Your task to perform on an android device: open app "Move to iOS" (install if not already installed) Image 0: 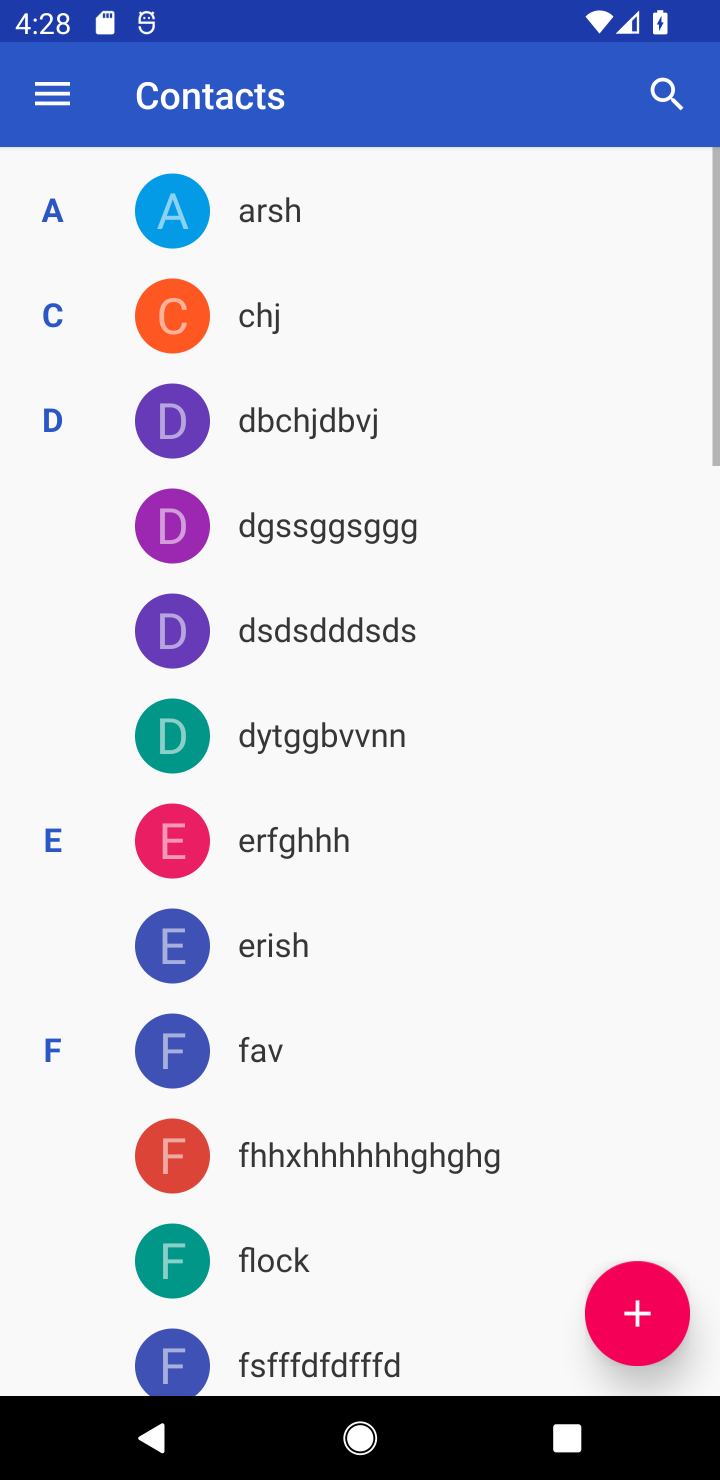
Step 0: press back button
Your task to perform on an android device: open app "Move to iOS" (install if not already installed) Image 1: 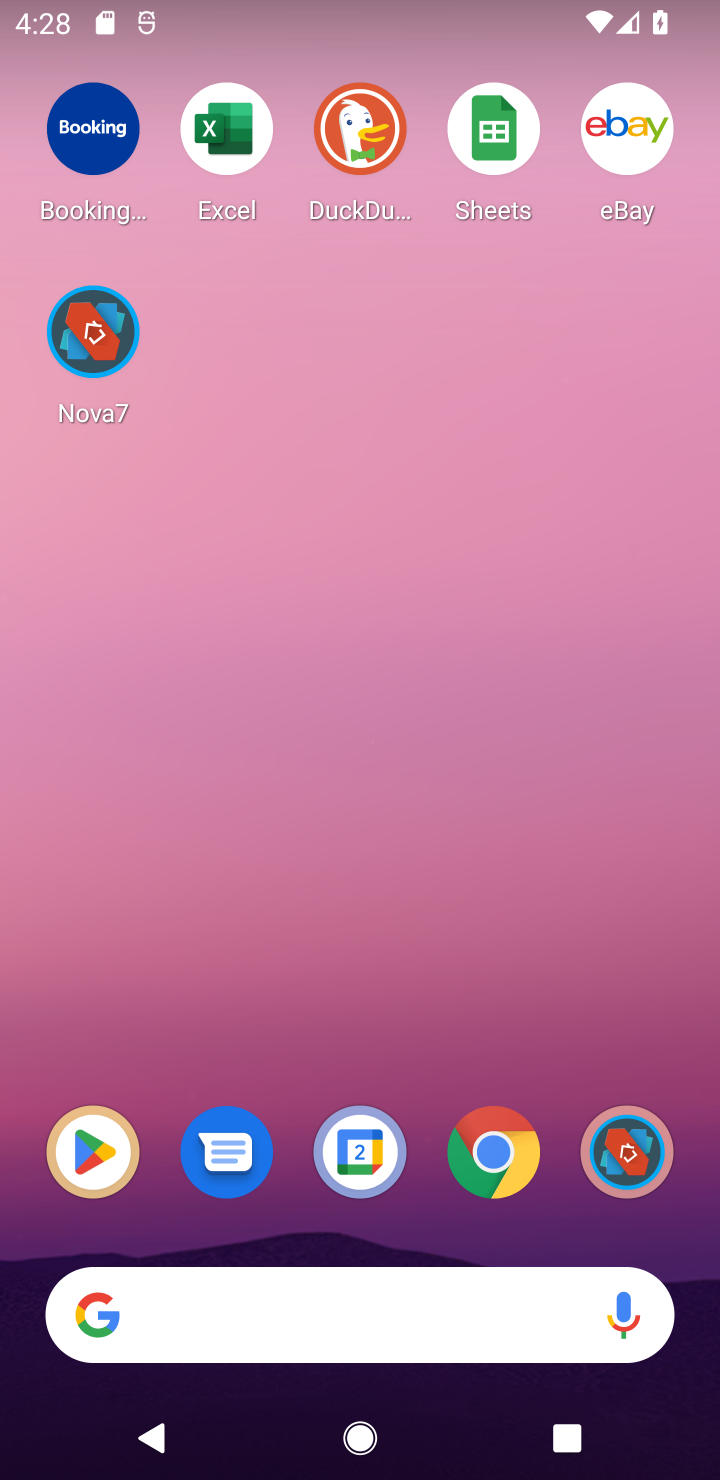
Step 1: press home button
Your task to perform on an android device: open app "Move to iOS" (install if not already installed) Image 2: 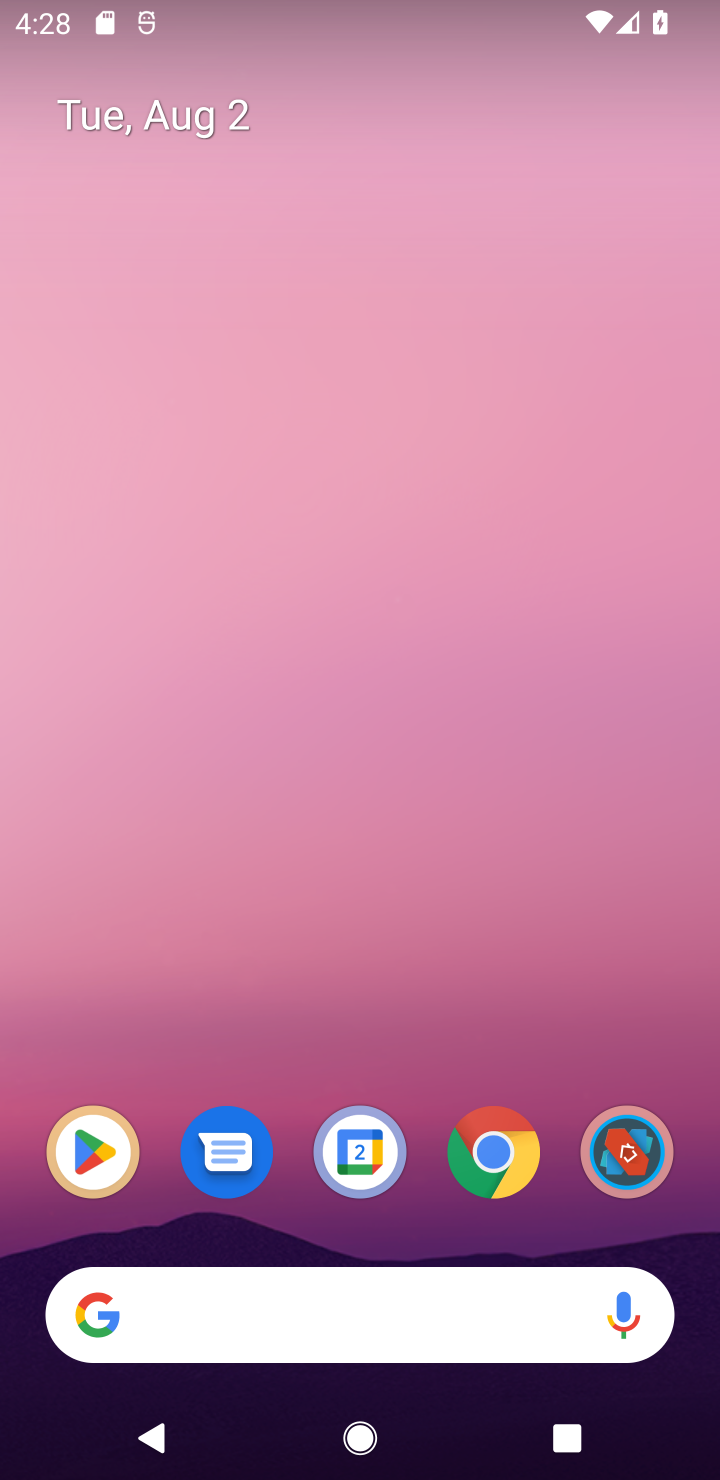
Step 2: drag from (396, 1245) to (535, 100)
Your task to perform on an android device: open app "Move to iOS" (install if not already installed) Image 3: 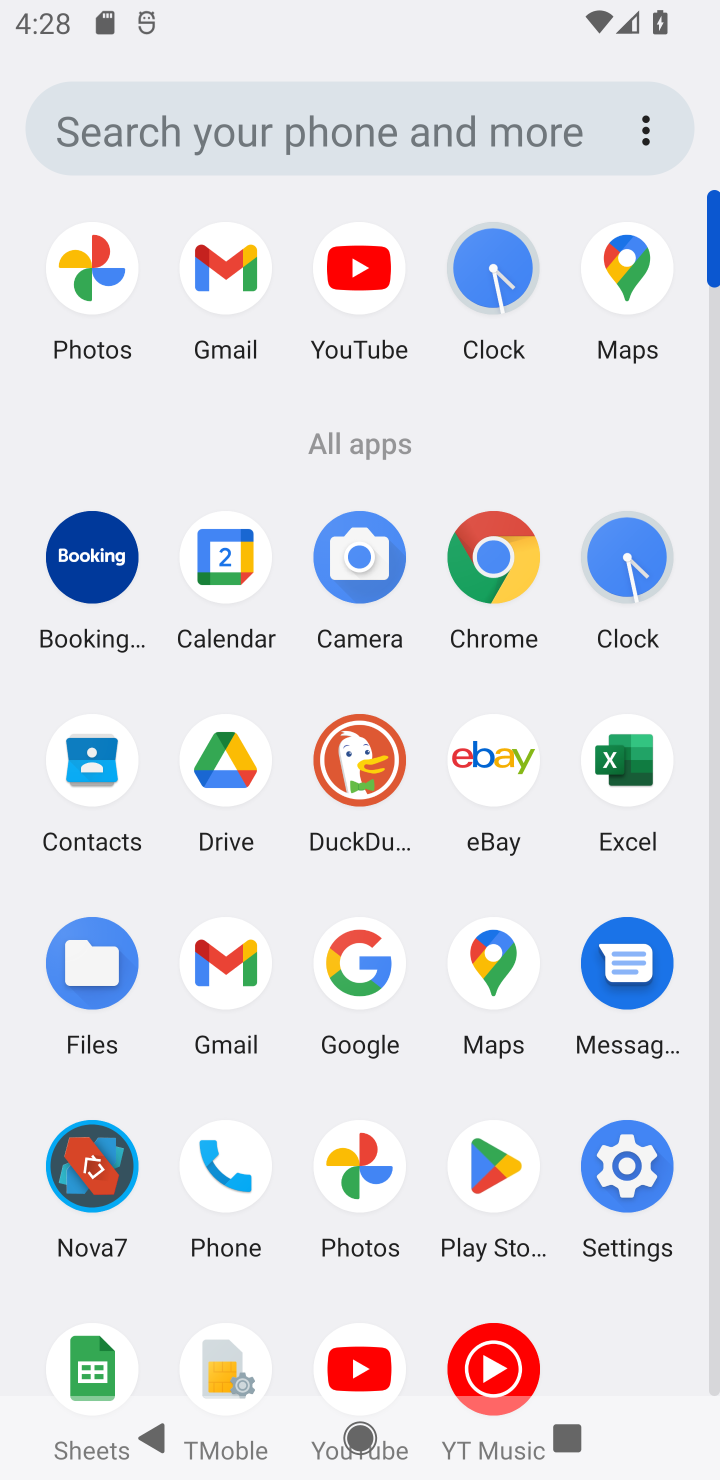
Step 3: click (491, 1176)
Your task to perform on an android device: open app "Move to iOS" (install if not already installed) Image 4: 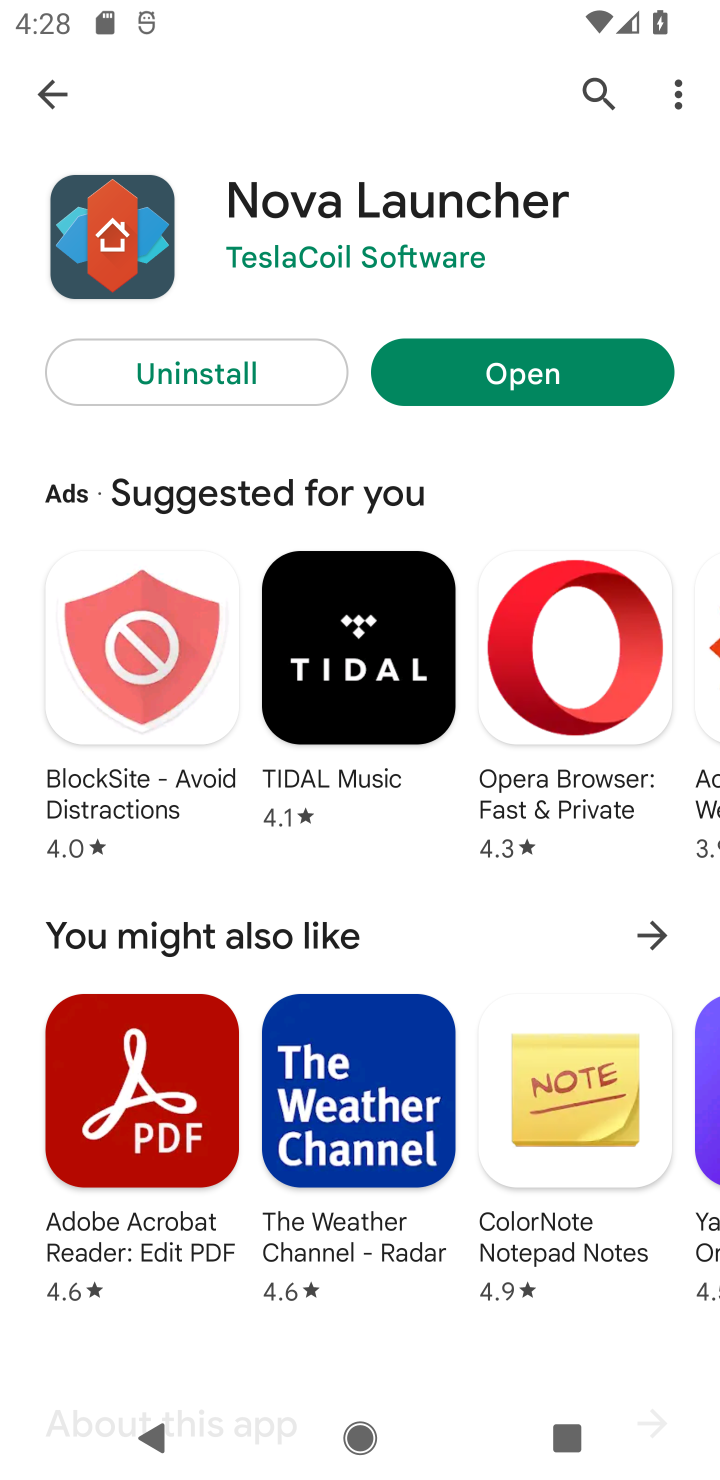
Step 4: click (7, 80)
Your task to perform on an android device: open app "Move to iOS" (install if not already installed) Image 5: 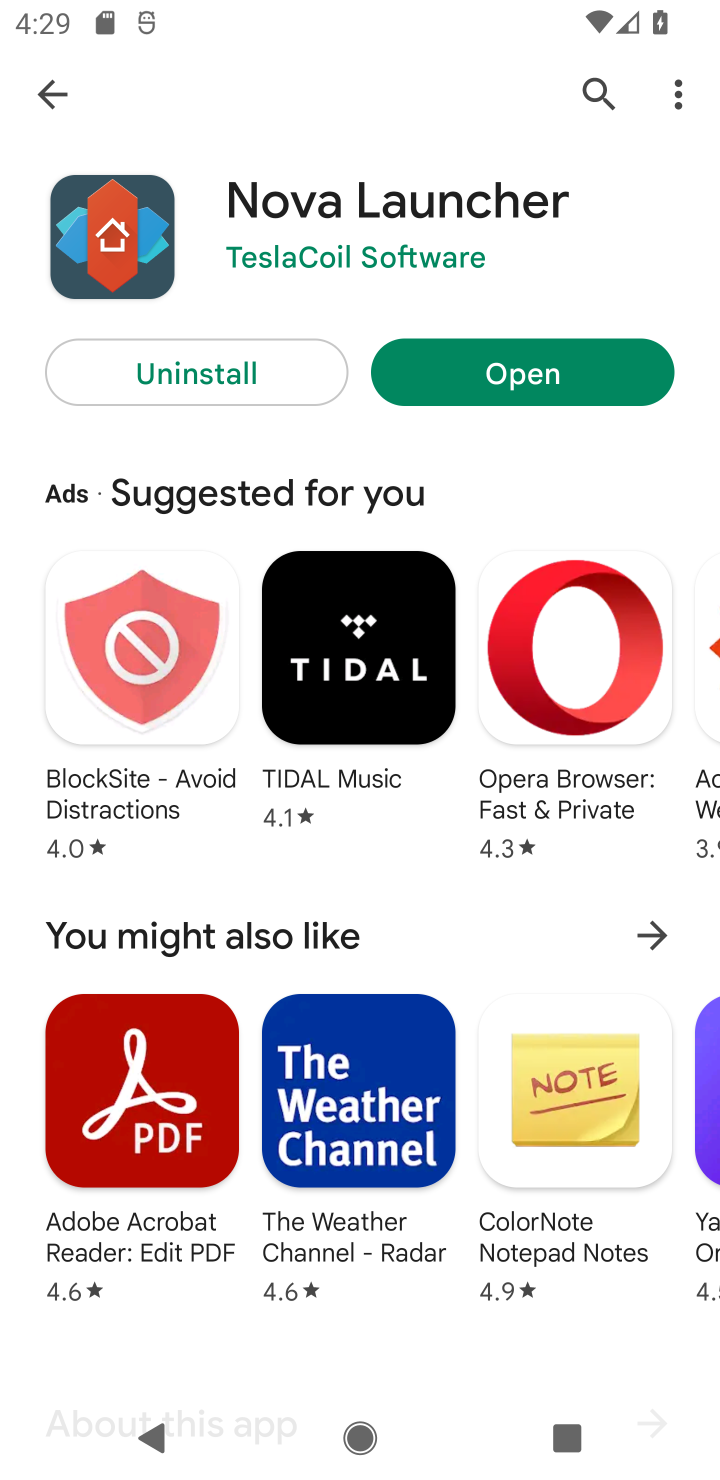
Step 5: click (48, 83)
Your task to perform on an android device: open app "Move to iOS" (install if not already installed) Image 6: 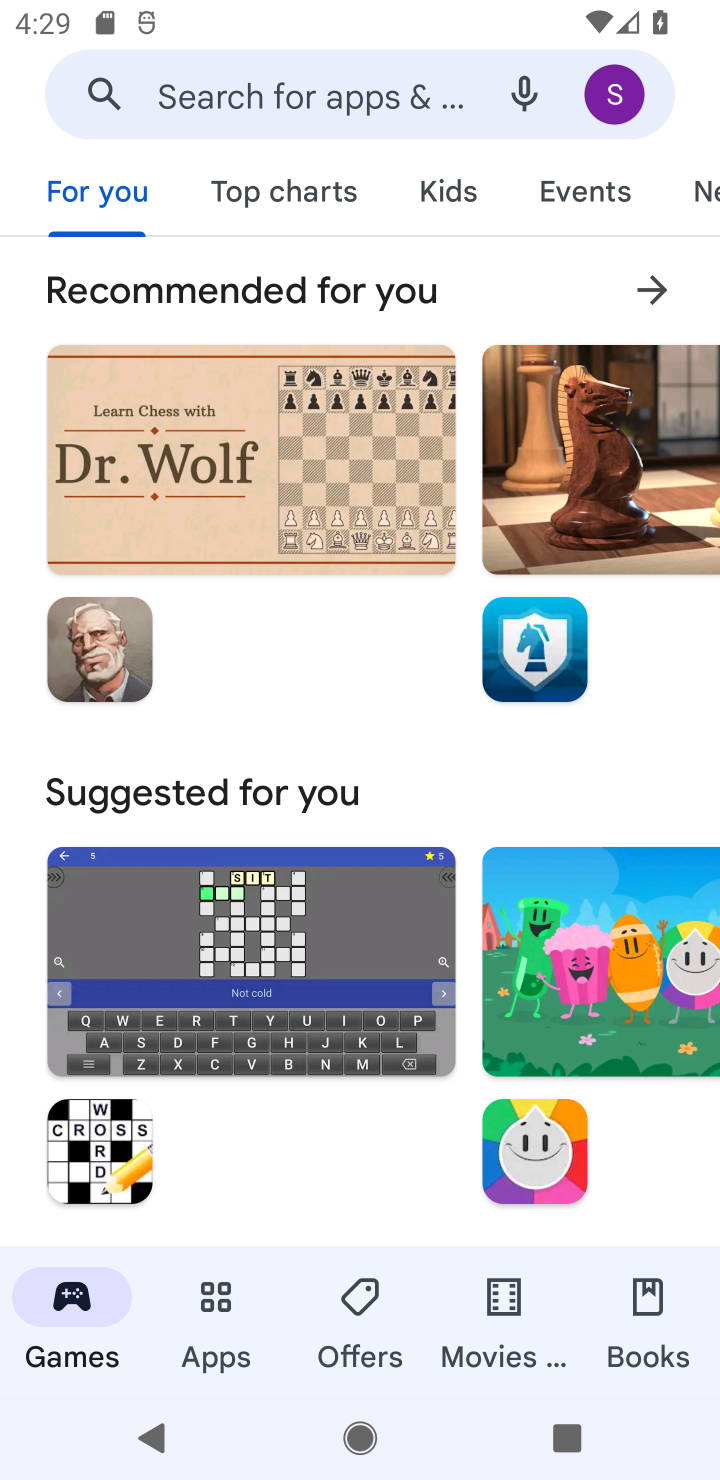
Step 6: click (214, 103)
Your task to perform on an android device: open app "Move to iOS" (install if not already installed) Image 7: 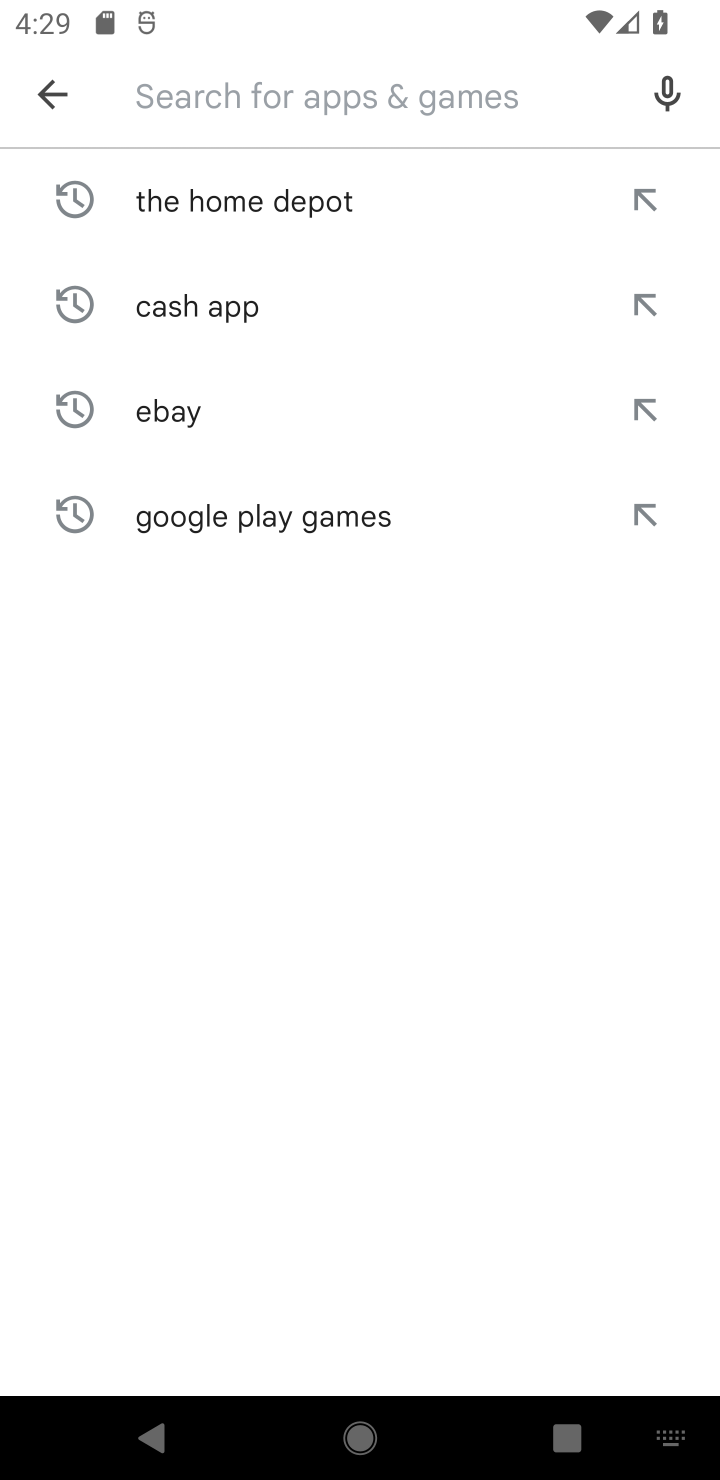
Step 7: type "Move to iOS"
Your task to perform on an android device: open app "Move to iOS" (install if not already installed) Image 8: 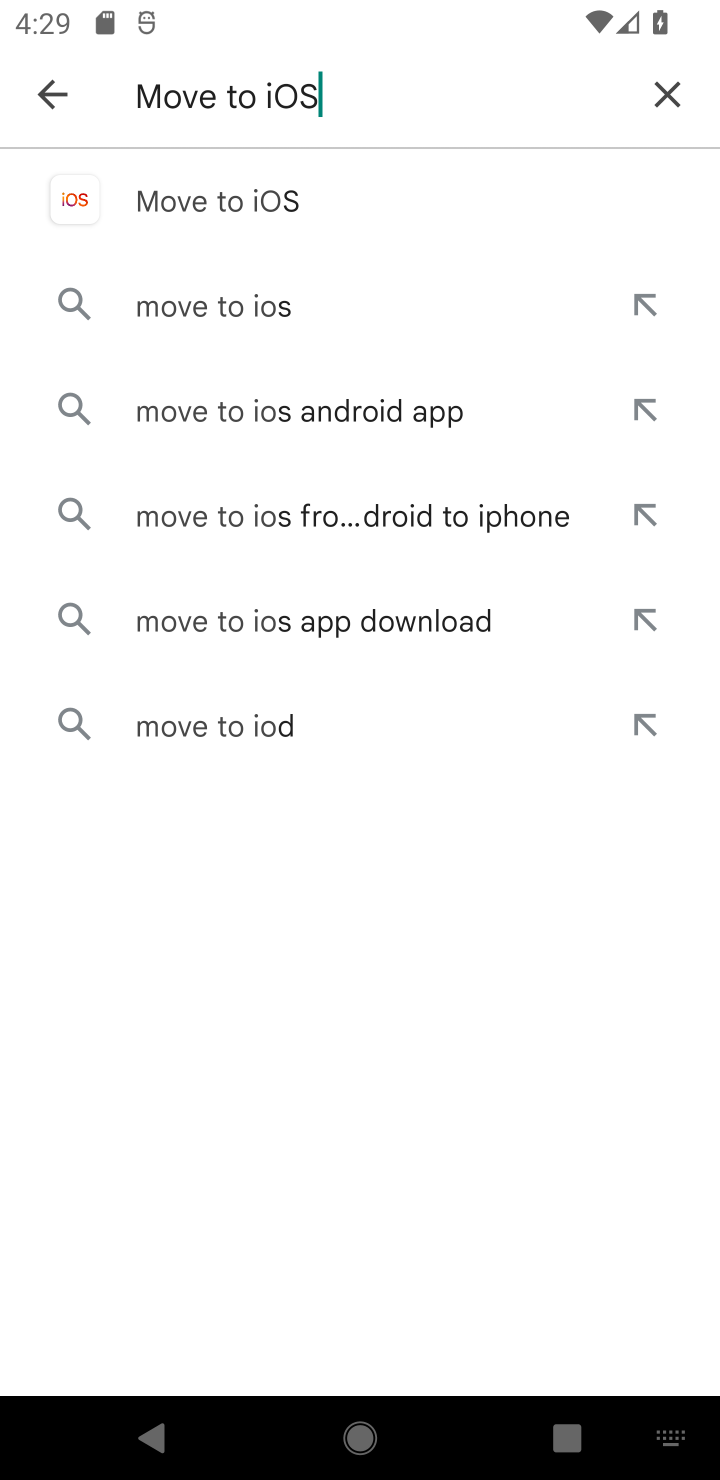
Step 8: type ""
Your task to perform on an android device: open app "Move to iOS" (install if not already installed) Image 9: 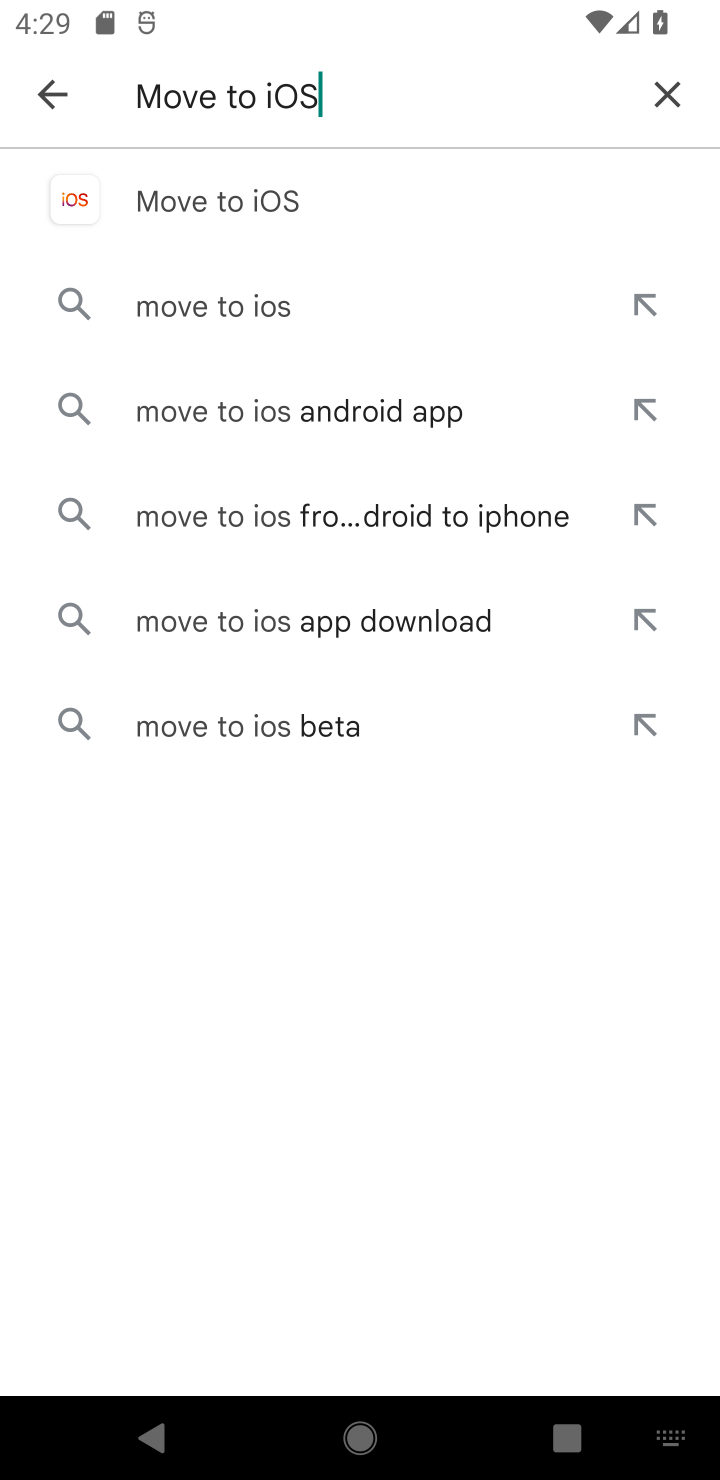
Step 9: click (269, 200)
Your task to perform on an android device: open app "Move to iOS" (install if not already installed) Image 10: 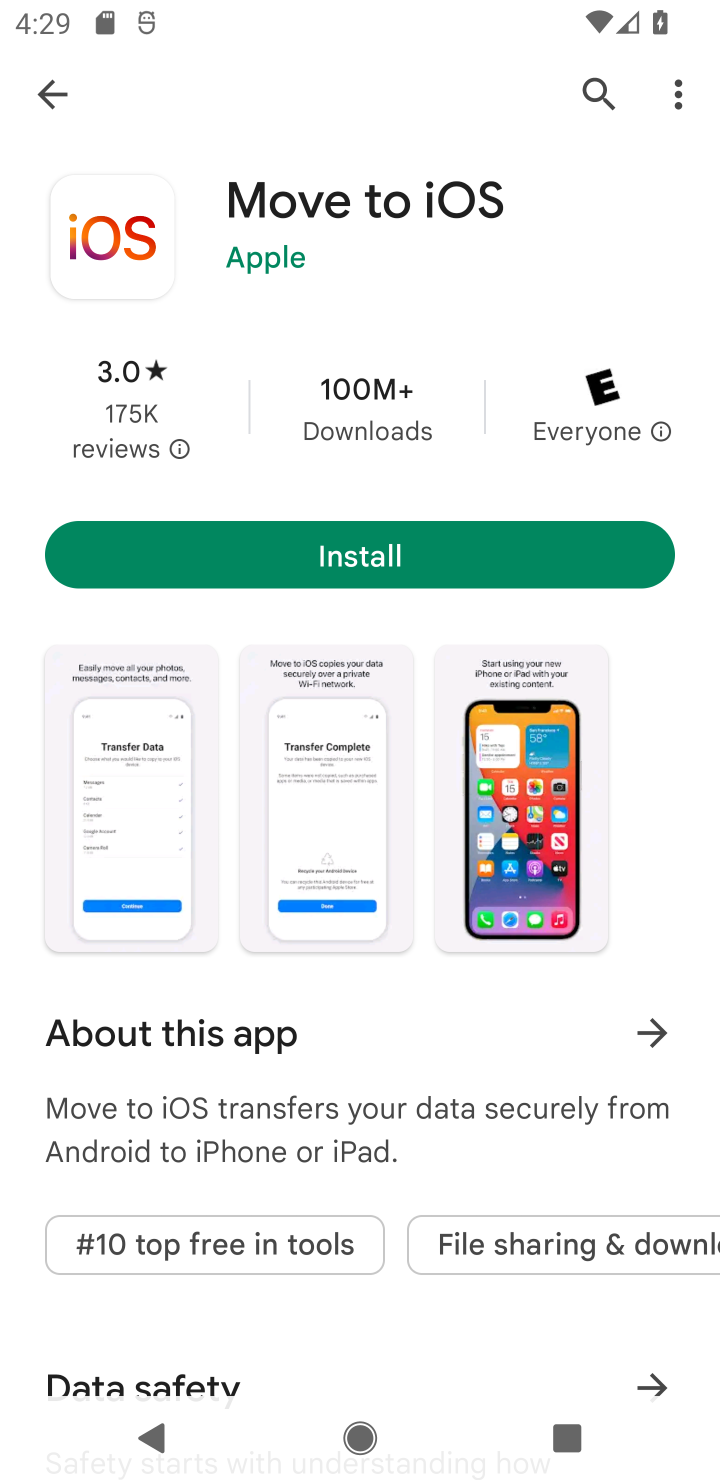
Step 10: click (316, 545)
Your task to perform on an android device: open app "Move to iOS" (install if not already installed) Image 11: 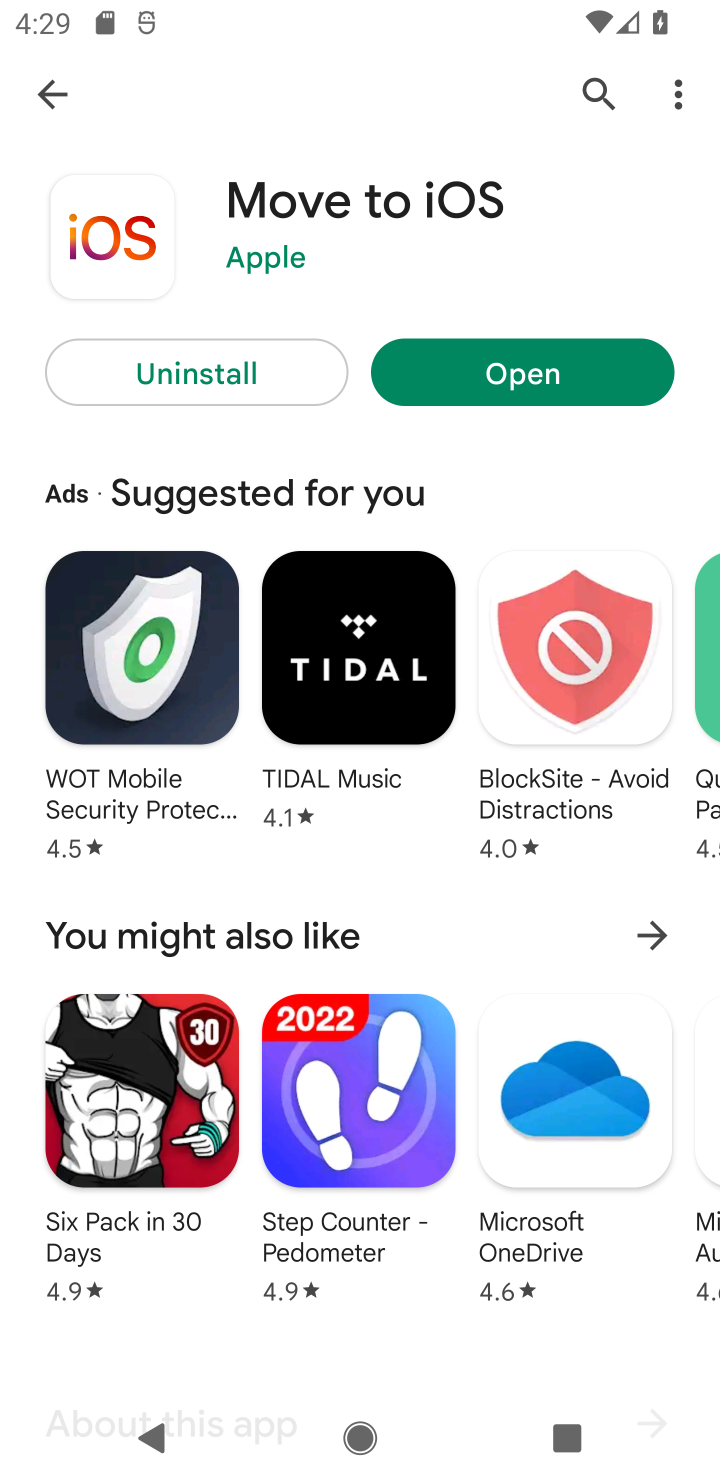
Step 11: click (553, 381)
Your task to perform on an android device: open app "Move to iOS" (install if not already installed) Image 12: 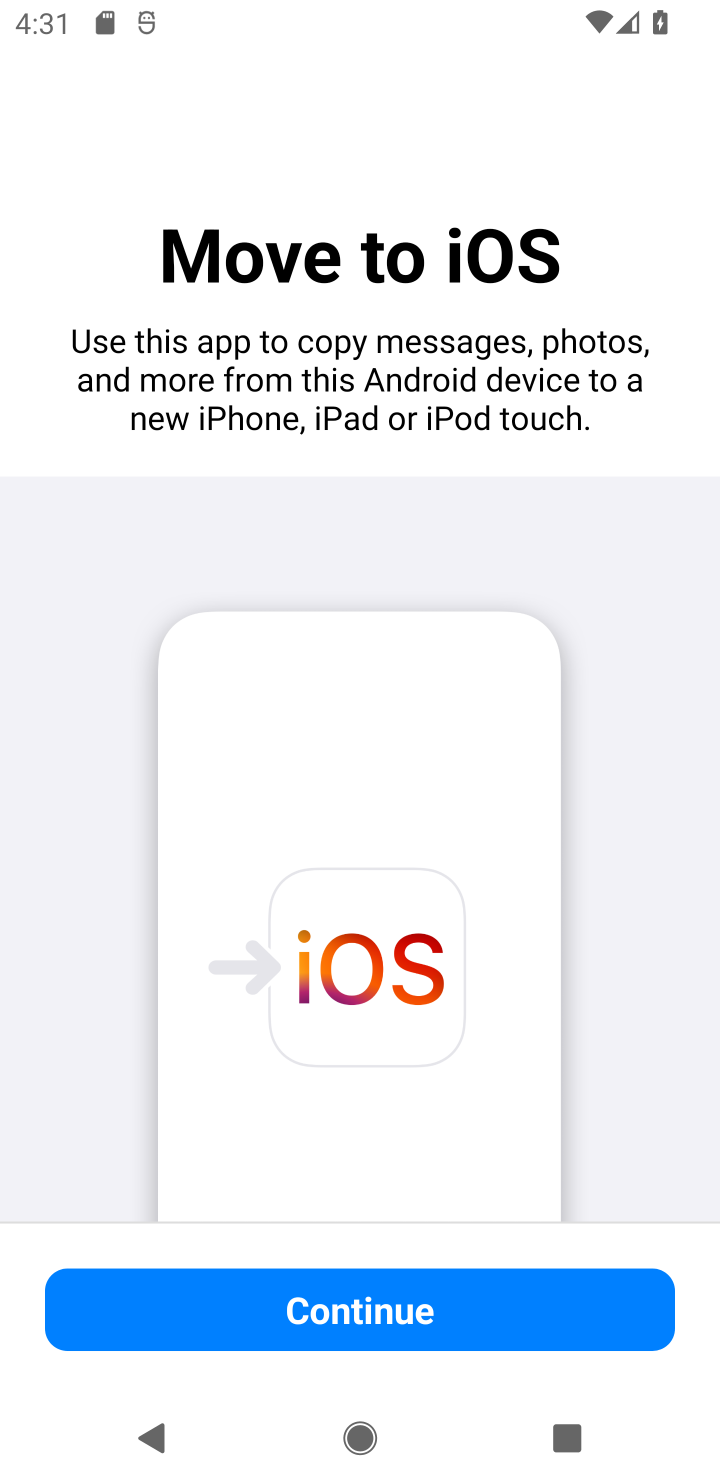
Step 12: task complete